Your task to perform on an android device: change notifications settings Image 0: 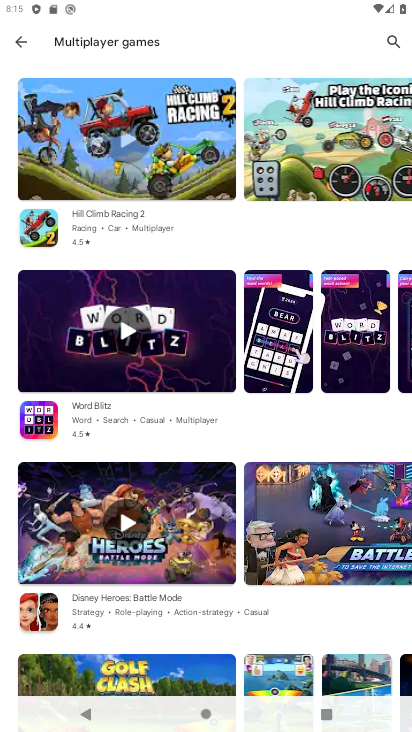
Step 0: press home button
Your task to perform on an android device: change notifications settings Image 1: 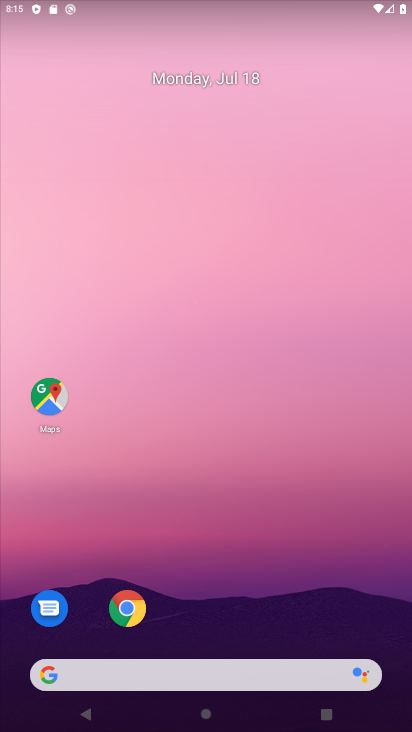
Step 1: drag from (227, 727) to (228, 42)
Your task to perform on an android device: change notifications settings Image 2: 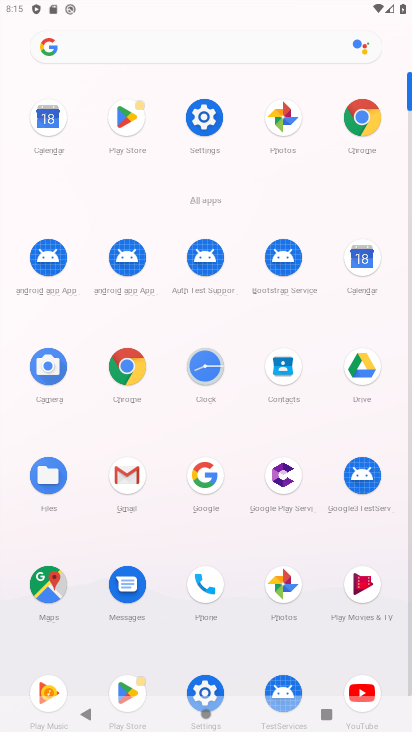
Step 2: click (205, 116)
Your task to perform on an android device: change notifications settings Image 3: 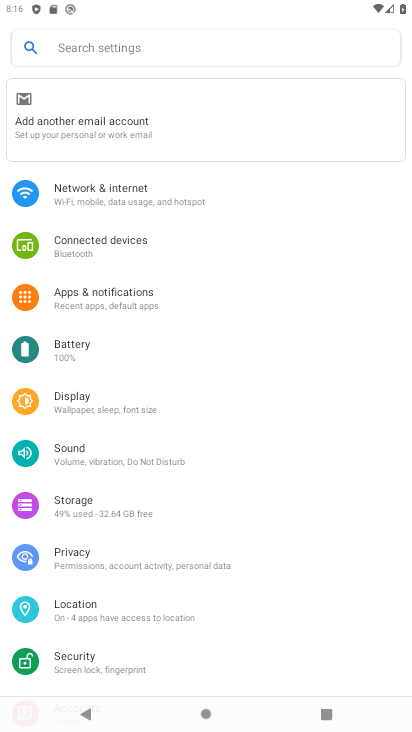
Step 3: click (91, 300)
Your task to perform on an android device: change notifications settings Image 4: 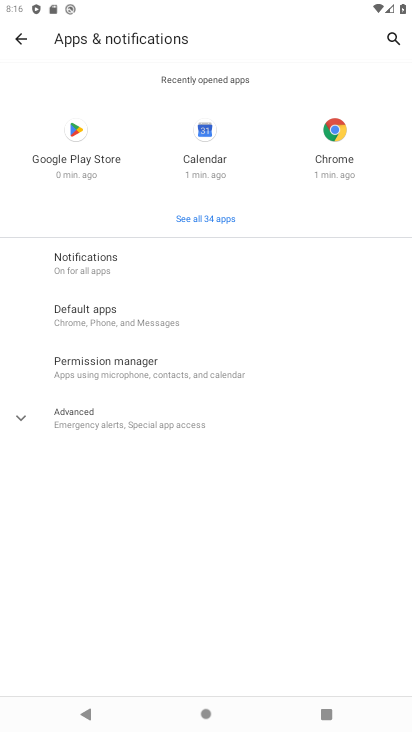
Step 4: click (81, 262)
Your task to perform on an android device: change notifications settings Image 5: 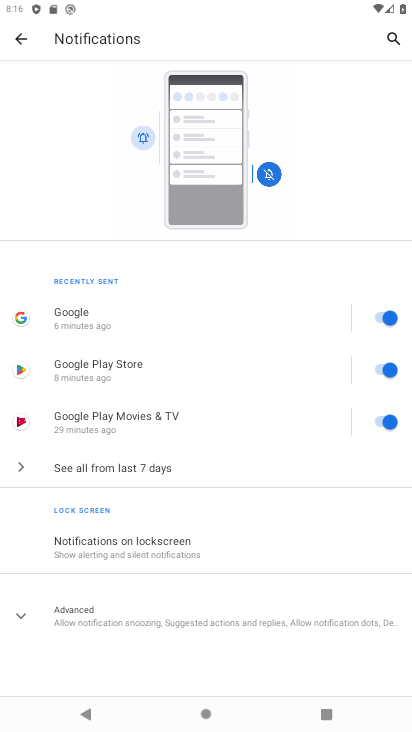
Step 5: click (109, 620)
Your task to perform on an android device: change notifications settings Image 6: 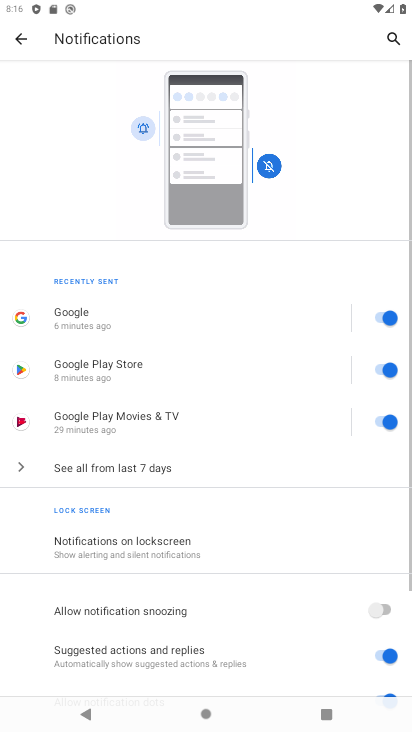
Step 6: click (387, 611)
Your task to perform on an android device: change notifications settings Image 7: 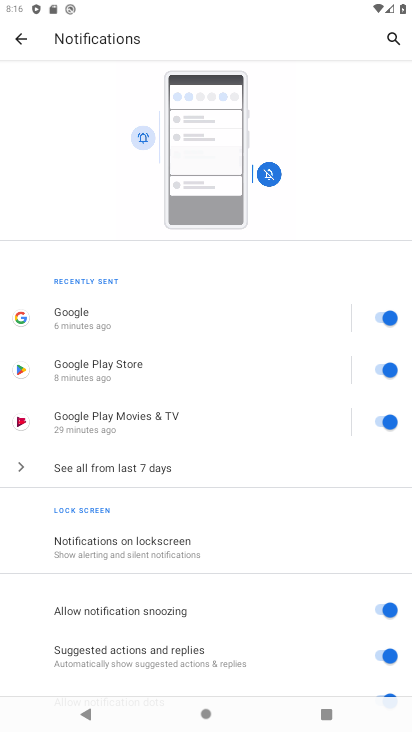
Step 7: task complete